Your task to perform on an android device: Open Wikipedia Image 0: 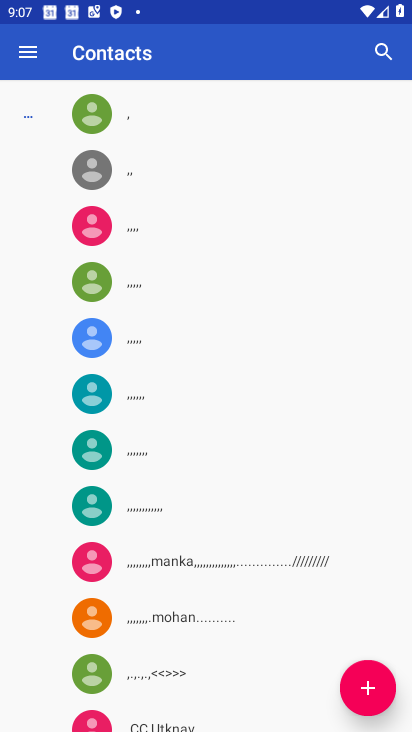
Step 0: press home button
Your task to perform on an android device: Open Wikipedia Image 1: 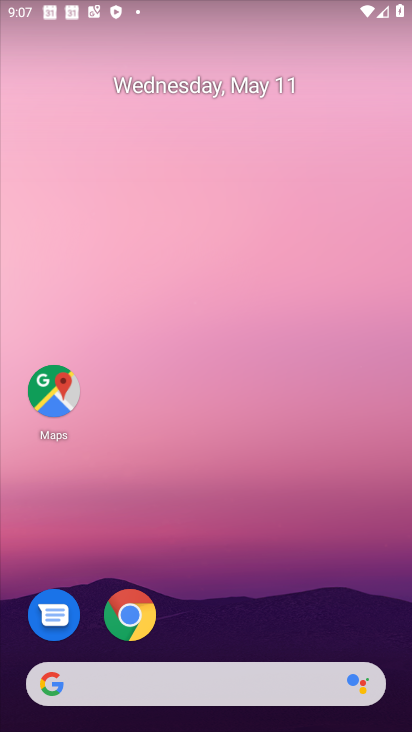
Step 1: click (120, 615)
Your task to perform on an android device: Open Wikipedia Image 2: 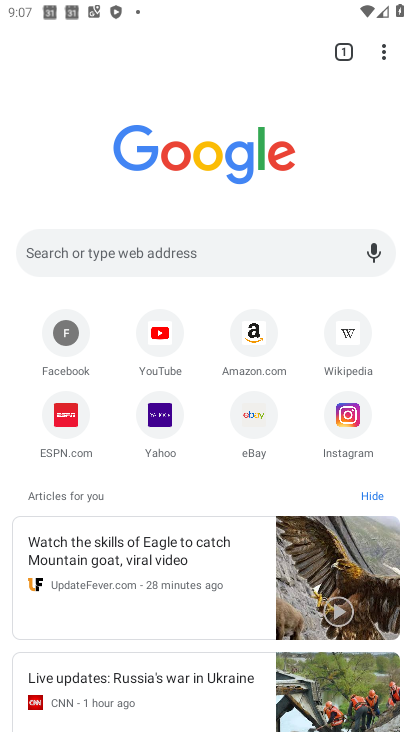
Step 2: click (342, 340)
Your task to perform on an android device: Open Wikipedia Image 3: 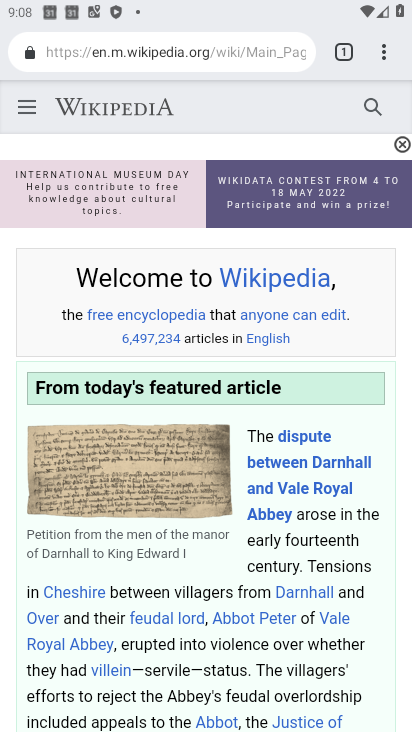
Step 3: task complete